Your task to perform on an android device: Clear the cart on target.com. Add "usb-b" to the cart on target.com Image 0: 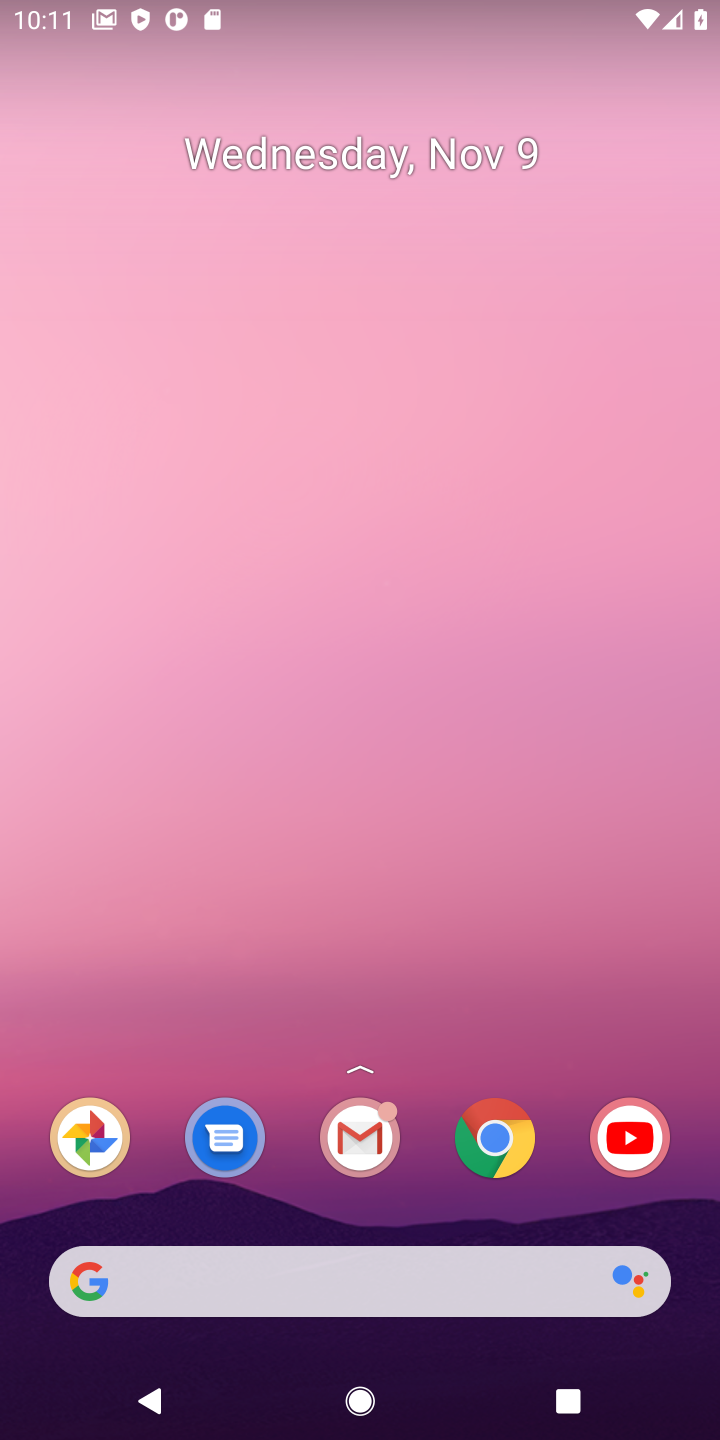
Step 0: press home button
Your task to perform on an android device: Clear the cart on target.com. Add "usb-b" to the cart on target.com Image 1: 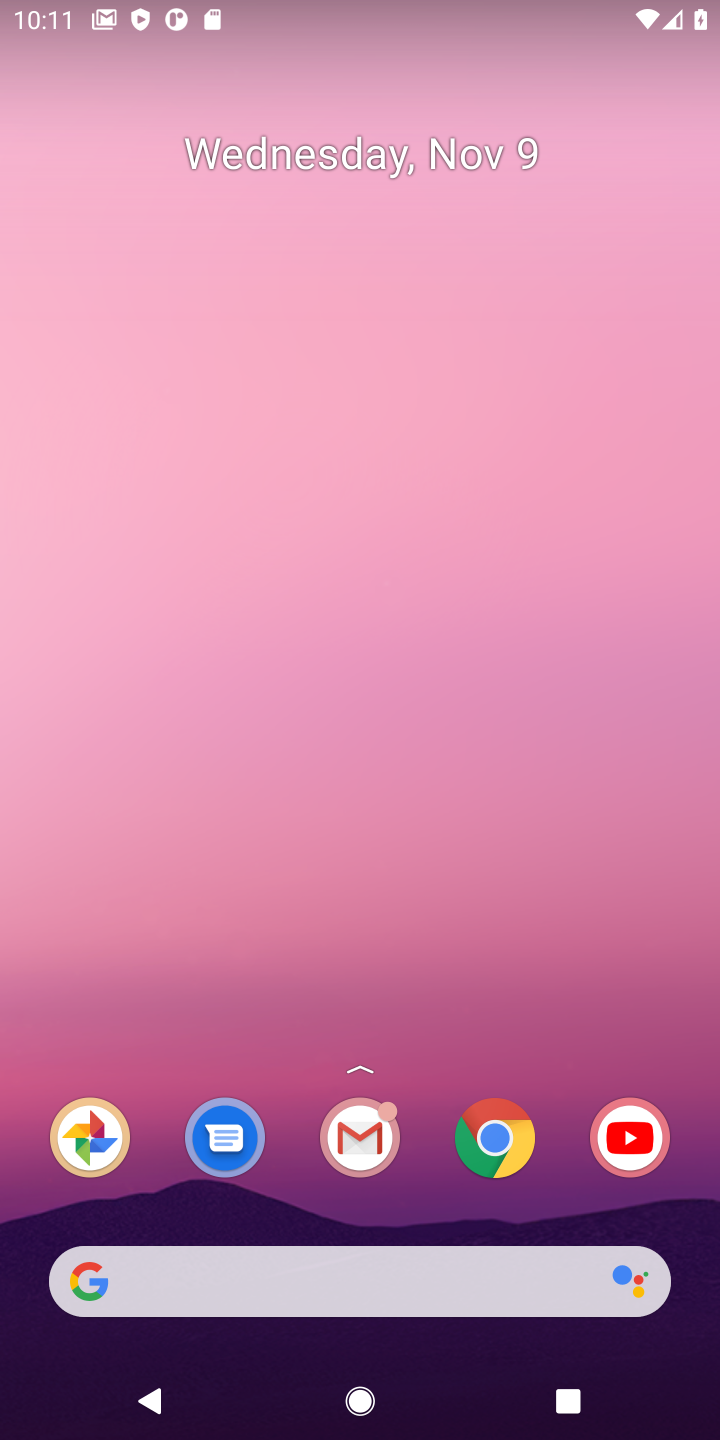
Step 1: drag from (565, 559) to (607, 0)
Your task to perform on an android device: Clear the cart on target.com. Add "usb-b" to the cart on target.com Image 2: 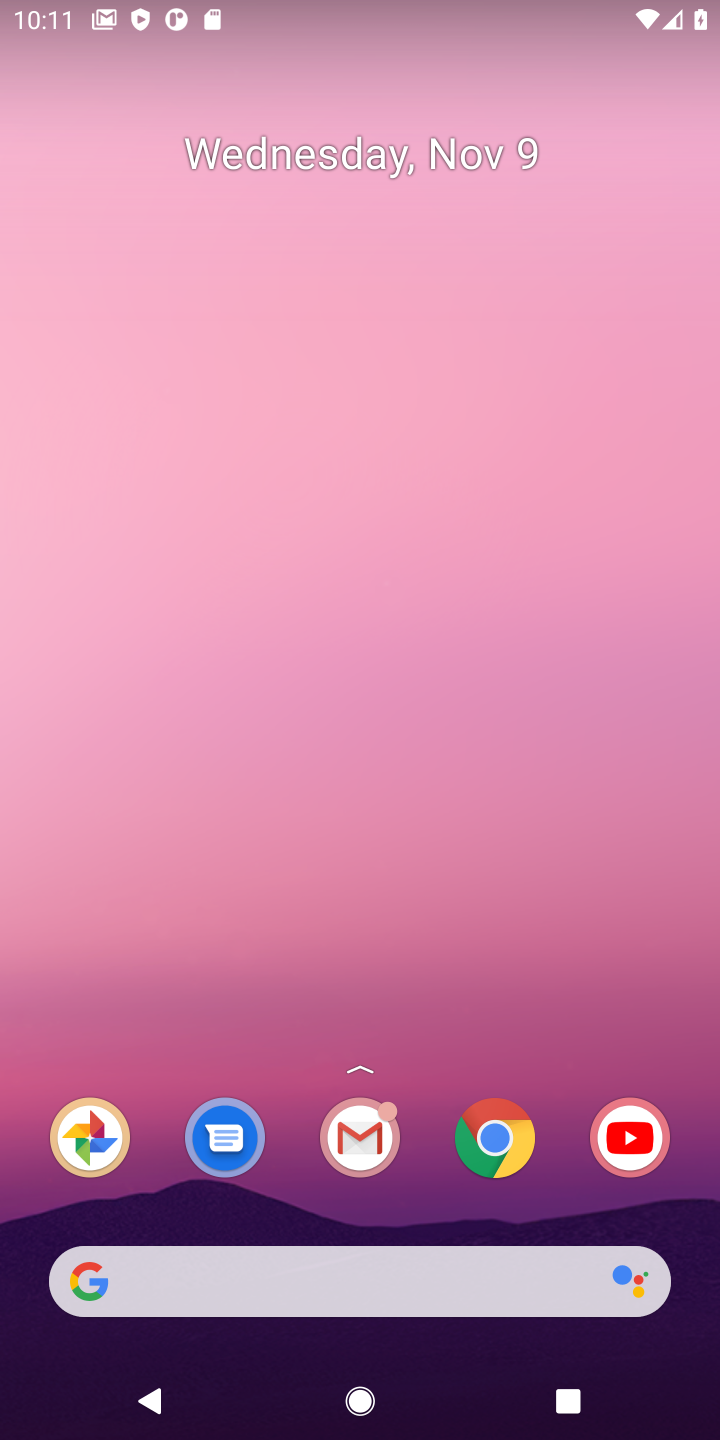
Step 2: drag from (450, 1208) to (368, 28)
Your task to perform on an android device: Clear the cart on target.com. Add "usb-b" to the cart on target.com Image 3: 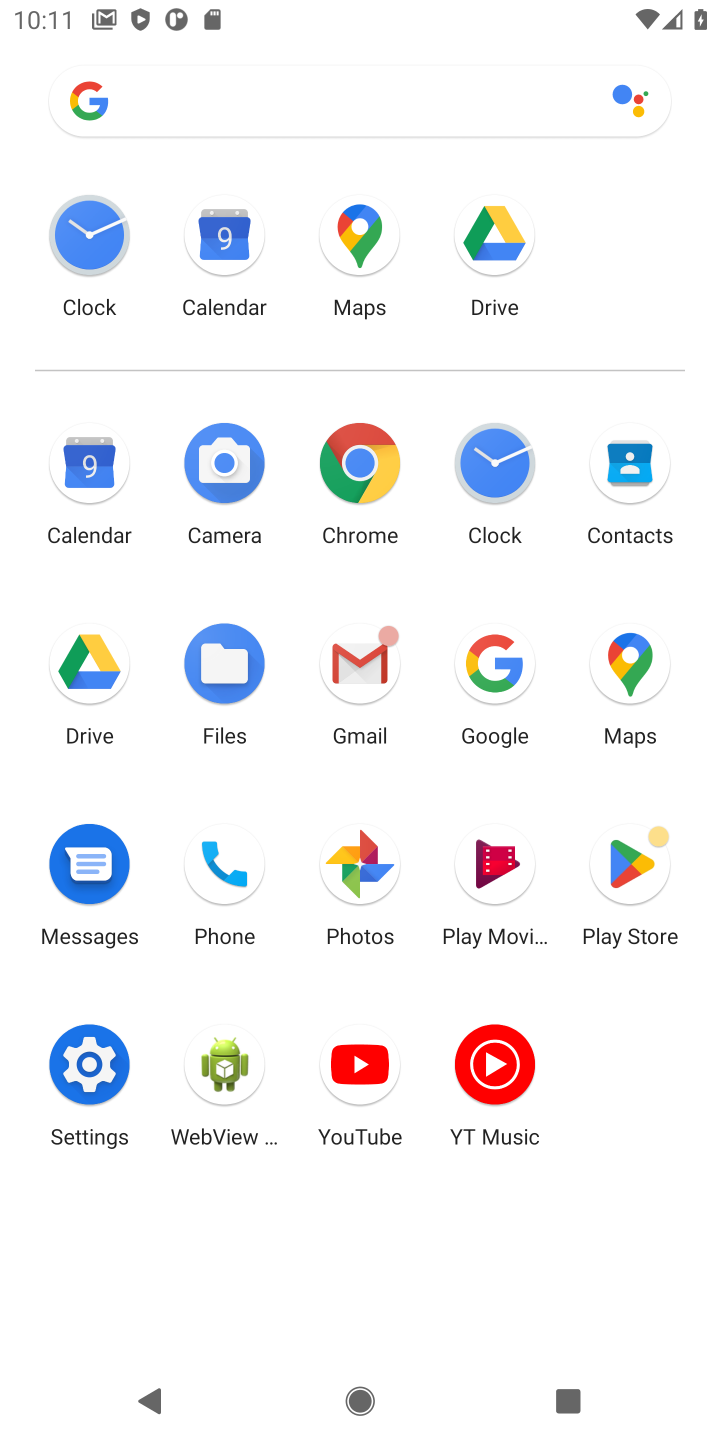
Step 3: click (364, 480)
Your task to perform on an android device: Clear the cart on target.com. Add "usb-b" to the cart on target.com Image 4: 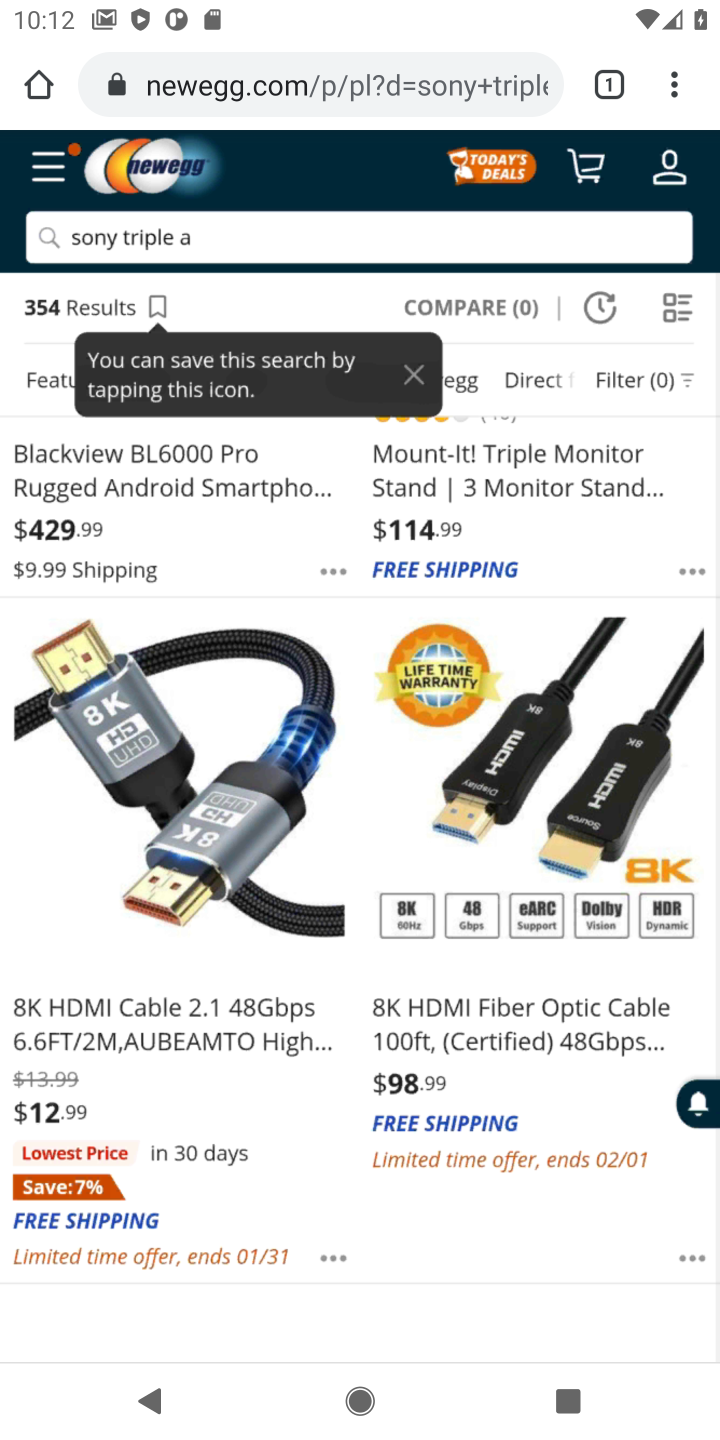
Step 4: click (323, 80)
Your task to perform on an android device: Clear the cart on target.com. Add "usb-b" to the cart on target.com Image 5: 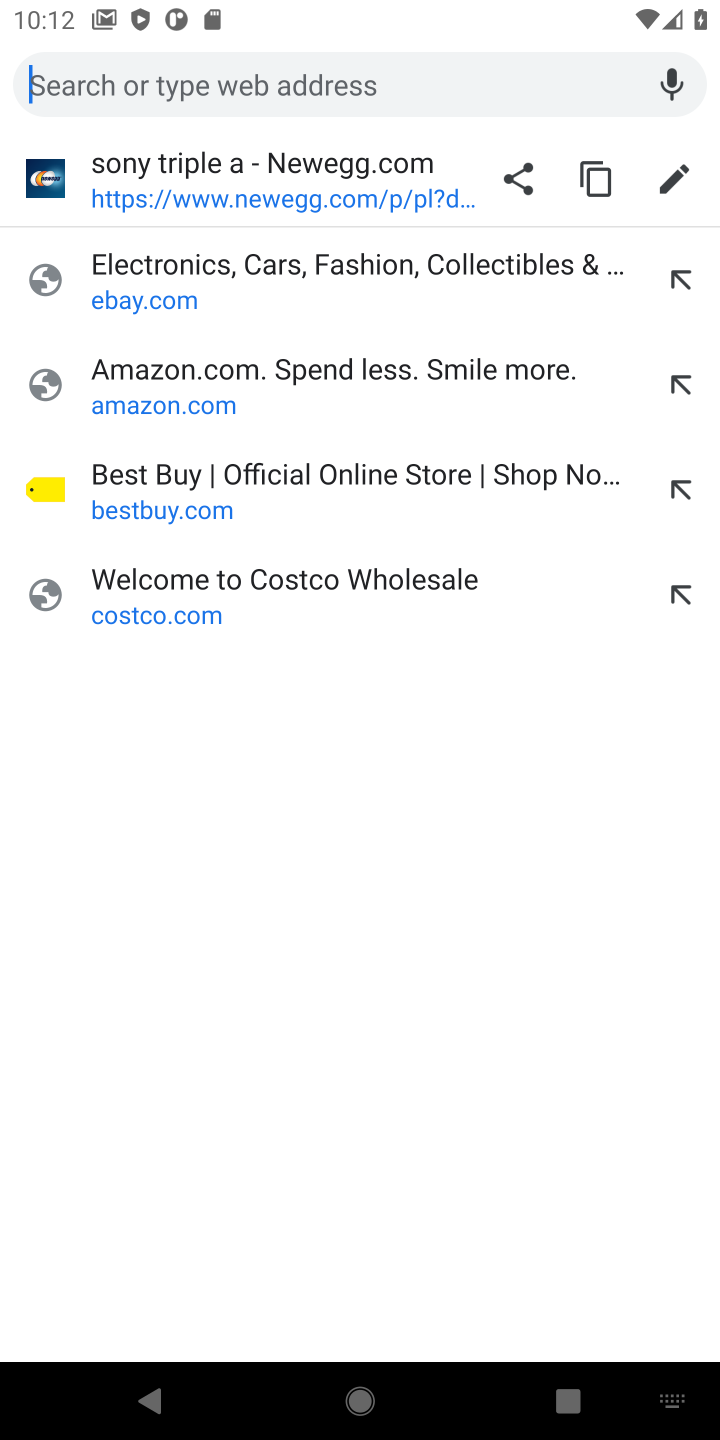
Step 5: type "target.com"
Your task to perform on an android device: Clear the cart on target.com. Add "usb-b" to the cart on target.com Image 6: 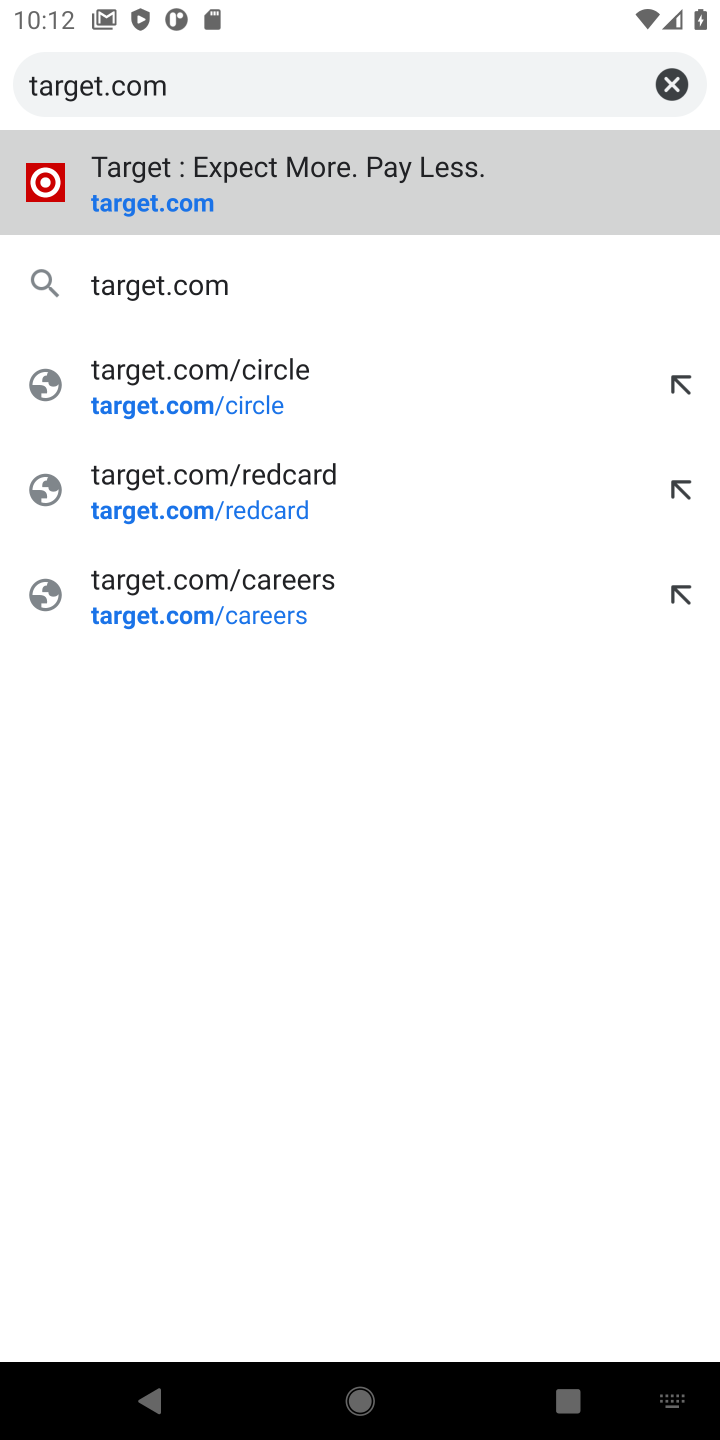
Step 6: press enter
Your task to perform on an android device: Clear the cart on target.com. Add "usb-b" to the cart on target.com Image 7: 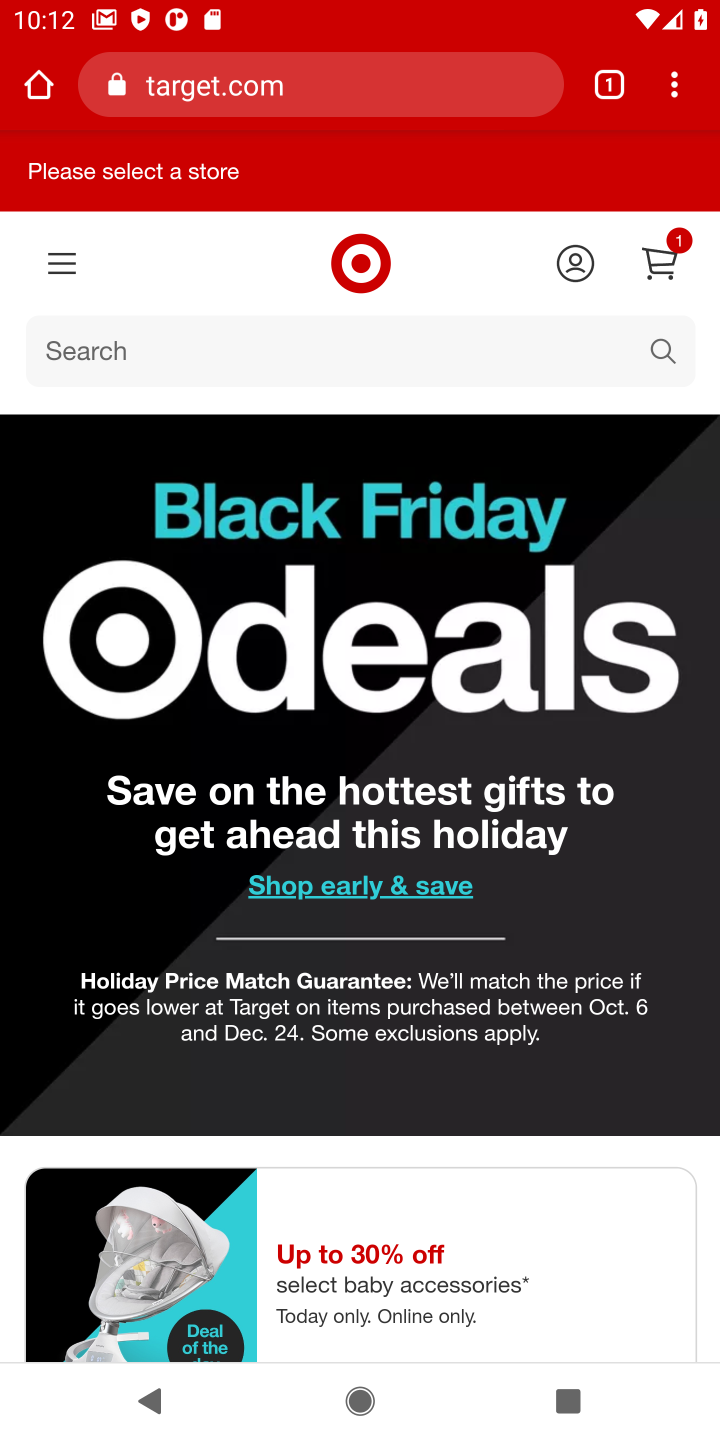
Step 7: click (644, 244)
Your task to perform on an android device: Clear the cart on target.com. Add "usb-b" to the cart on target.com Image 8: 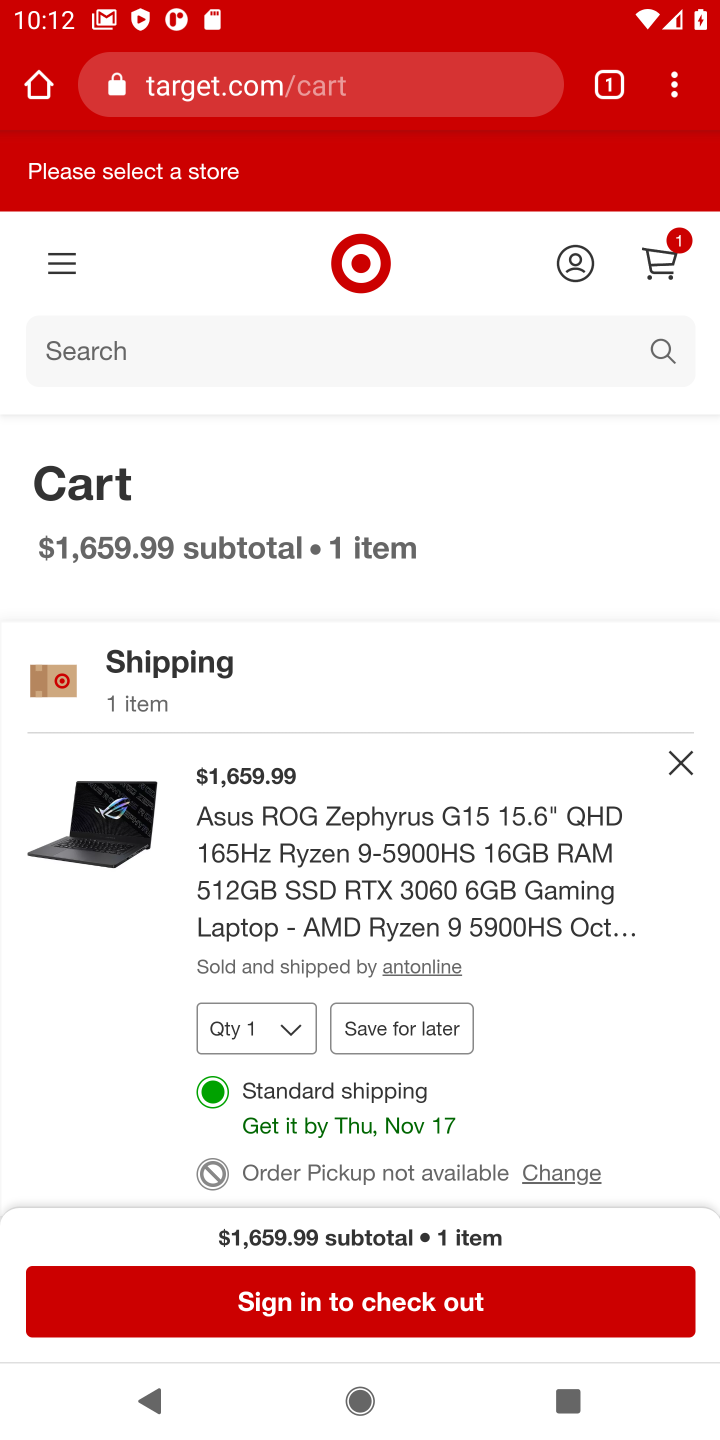
Step 8: click (681, 760)
Your task to perform on an android device: Clear the cart on target.com. Add "usb-b" to the cart on target.com Image 9: 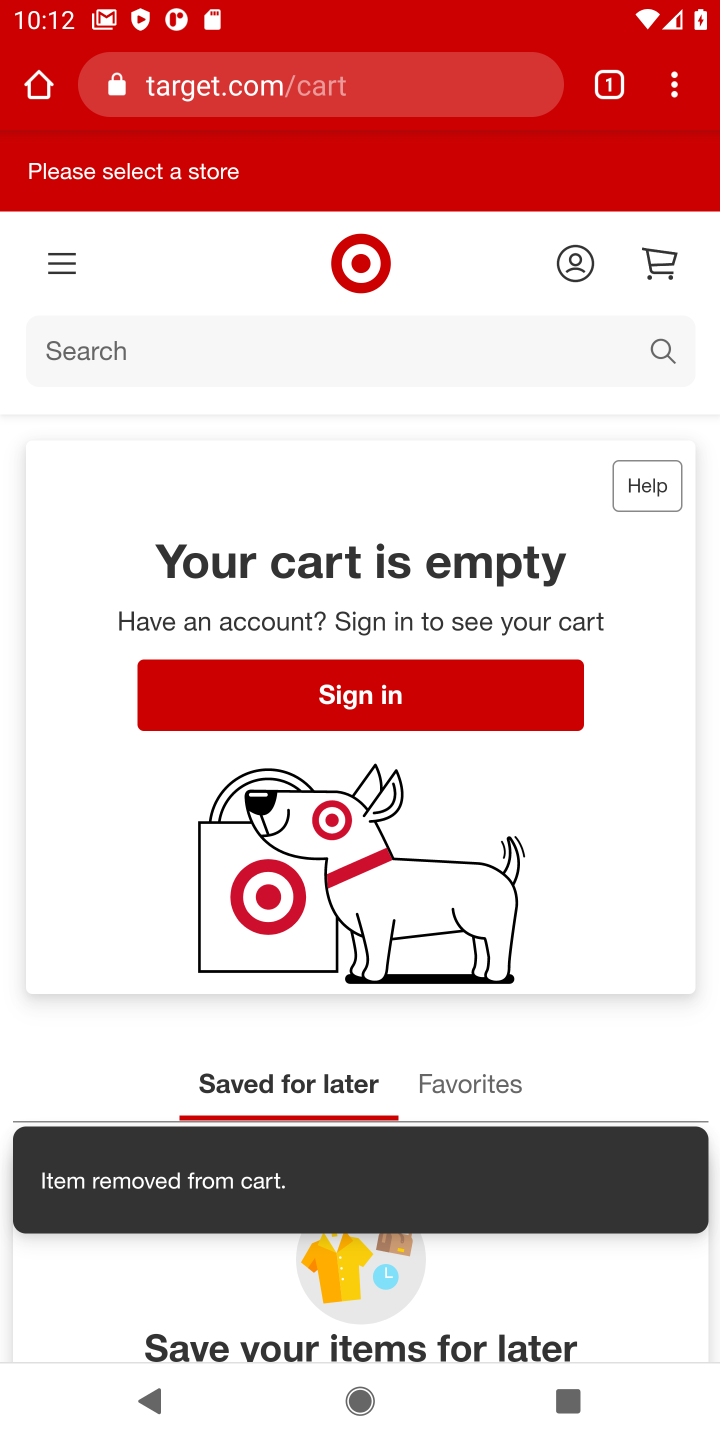
Step 9: click (325, 346)
Your task to perform on an android device: Clear the cart on target.com. Add "usb-b" to the cart on target.com Image 10: 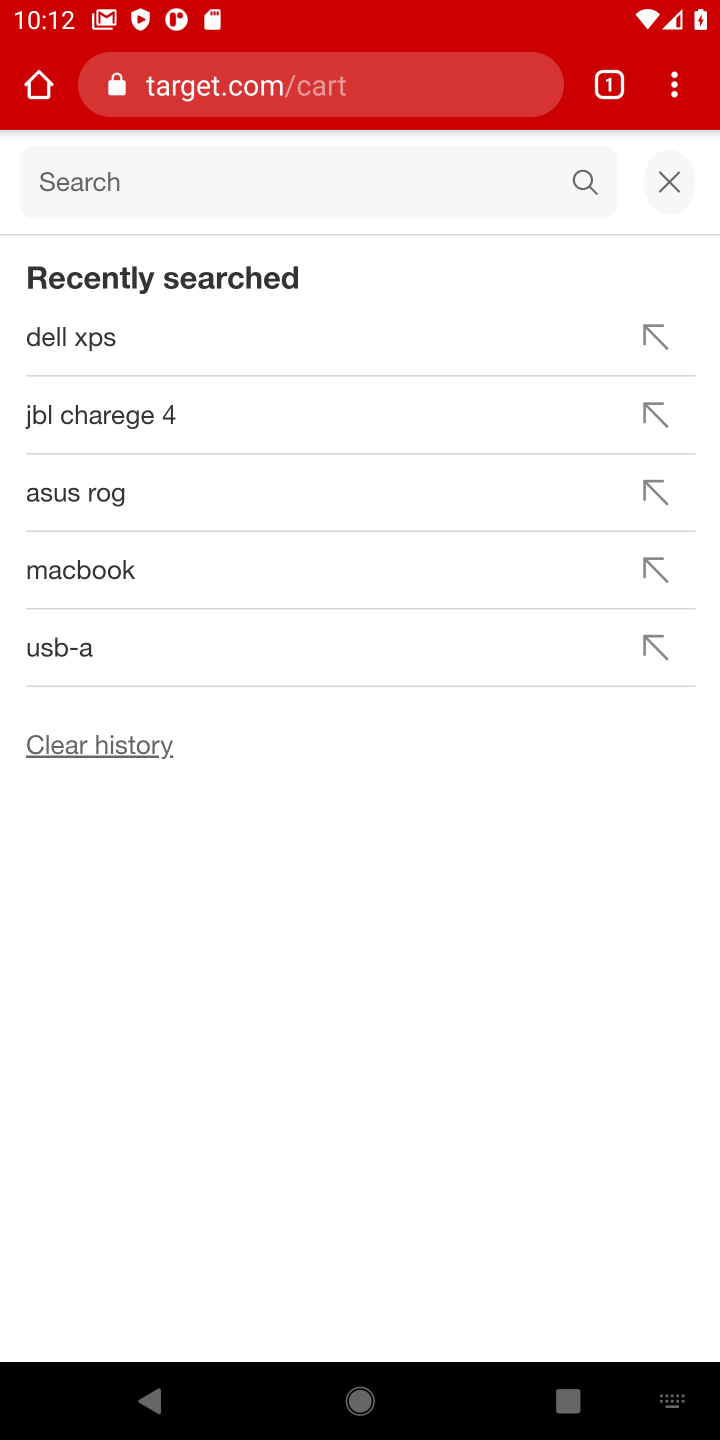
Step 10: type "usb-b"
Your task to perform on an android device: Clear the cart on target.com. Add "usb-b" to the cart on target.com Image 11: 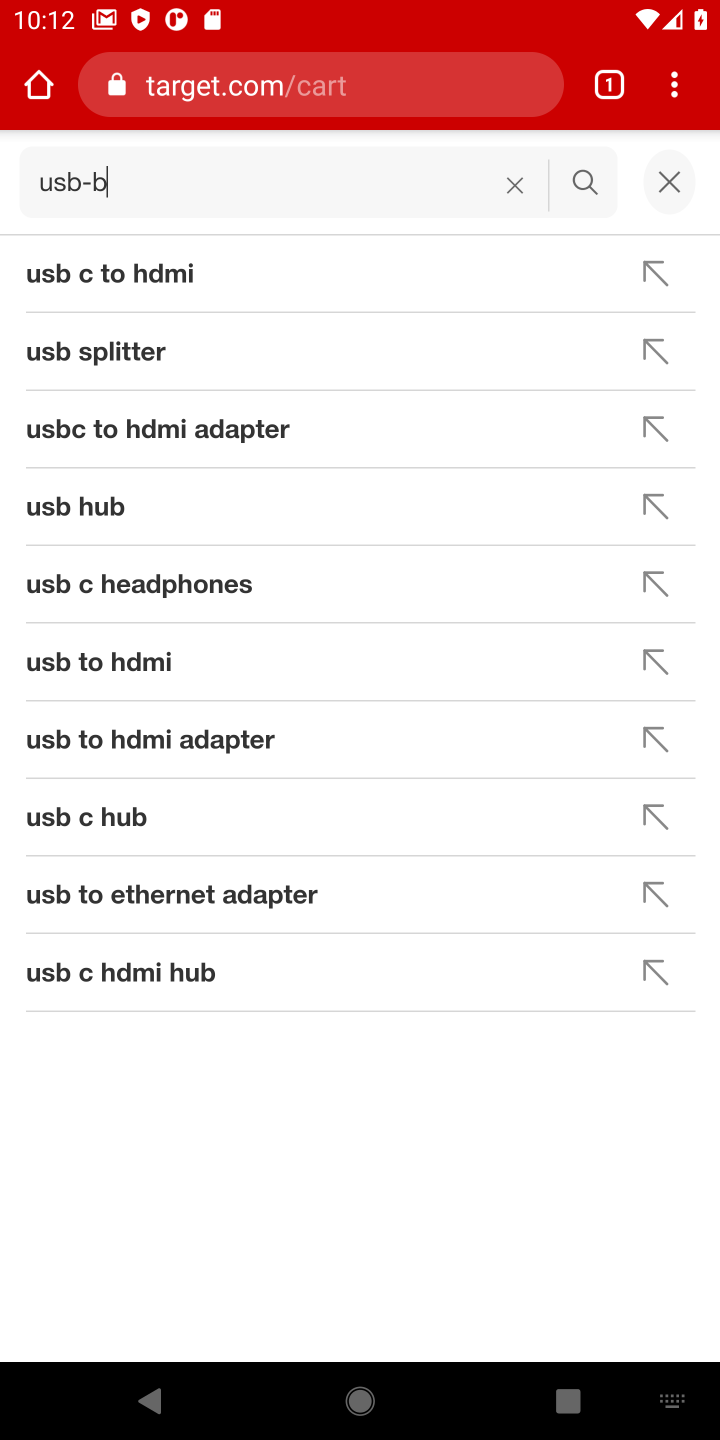
Step 11: press enter
Your task to perform on an android device: Clear the cart on target.com. Add "usb-b" to the cart on target.com Image 12: 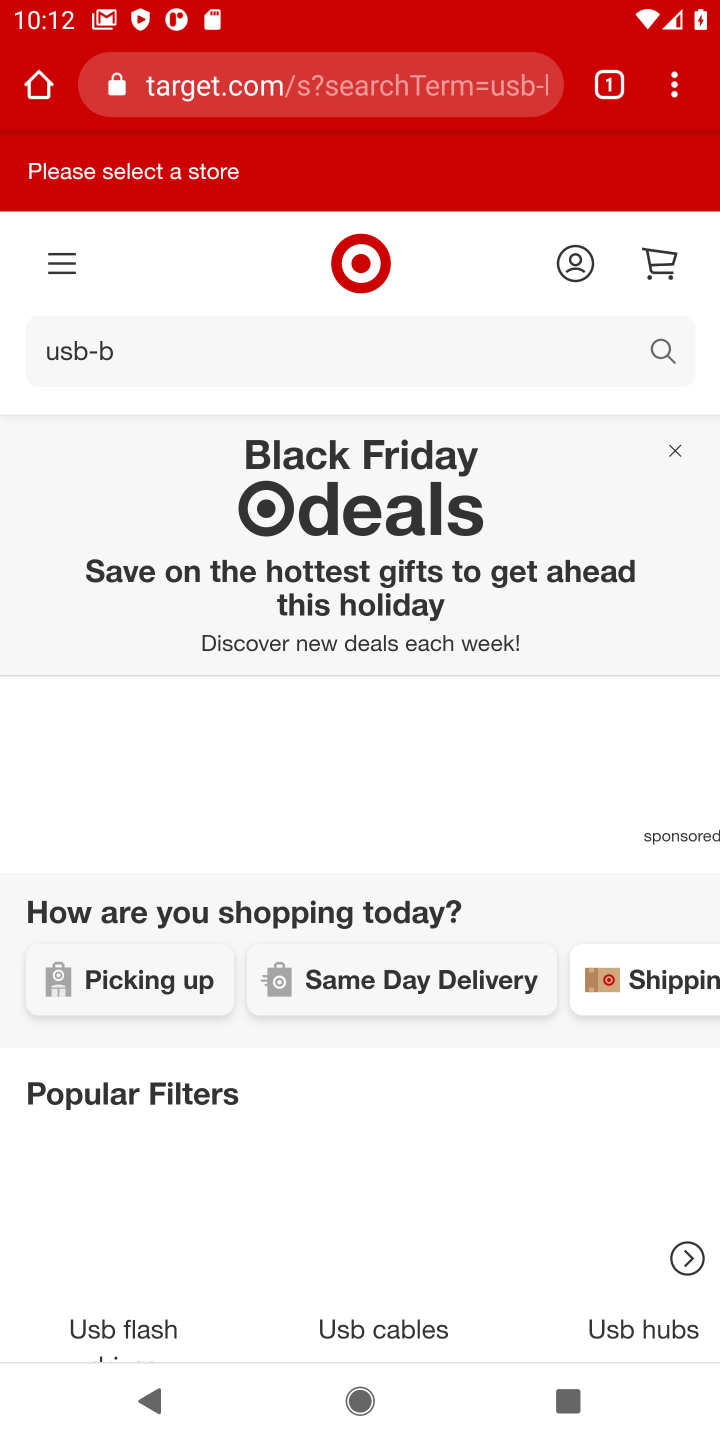
Step 12: drag from (425, 1098) to (455, 315)
Your task to perform on an android device: Clear the cart on target.com. Add "usb-b" to the cart on target.com Image 13: 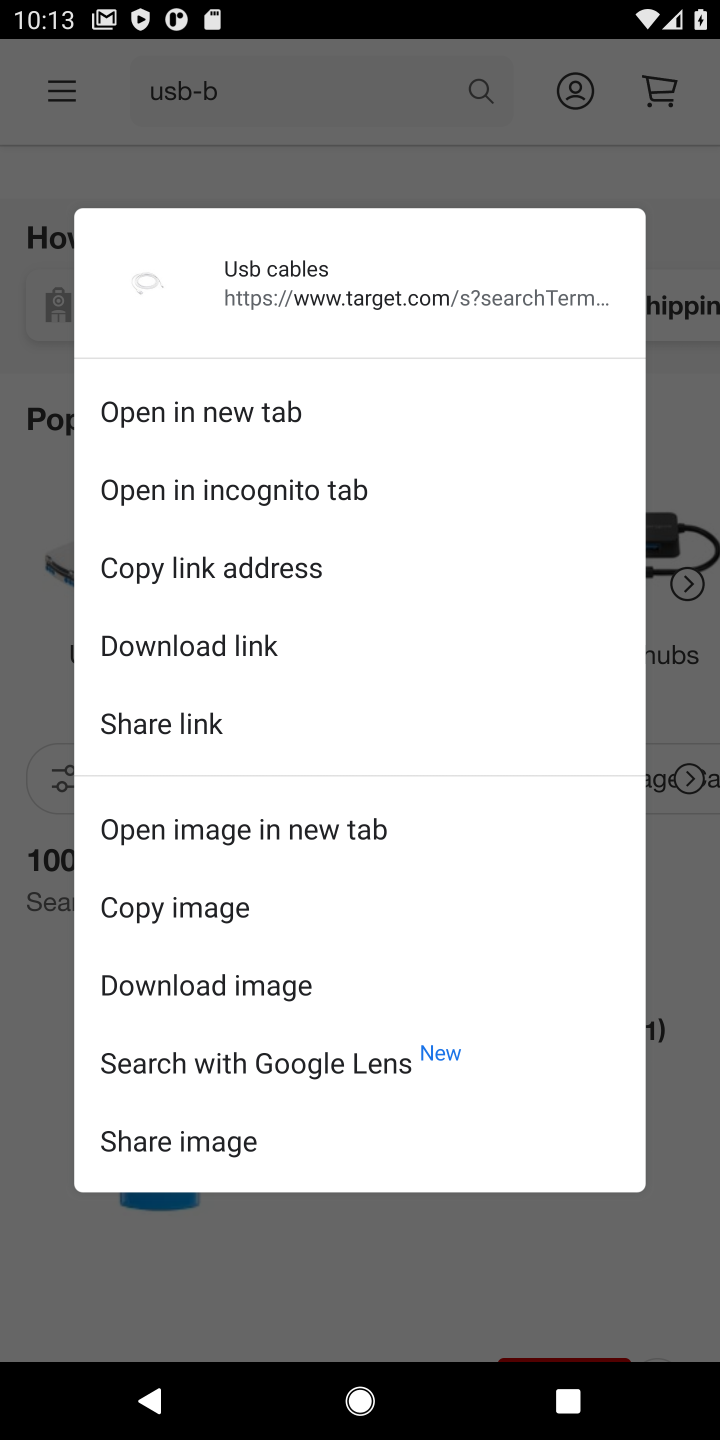
Step 13: click (690, 595)
Your task to perform on an android device: Clear the cart on target.com. Add "usb-b" to the cart on target.com Image 14: 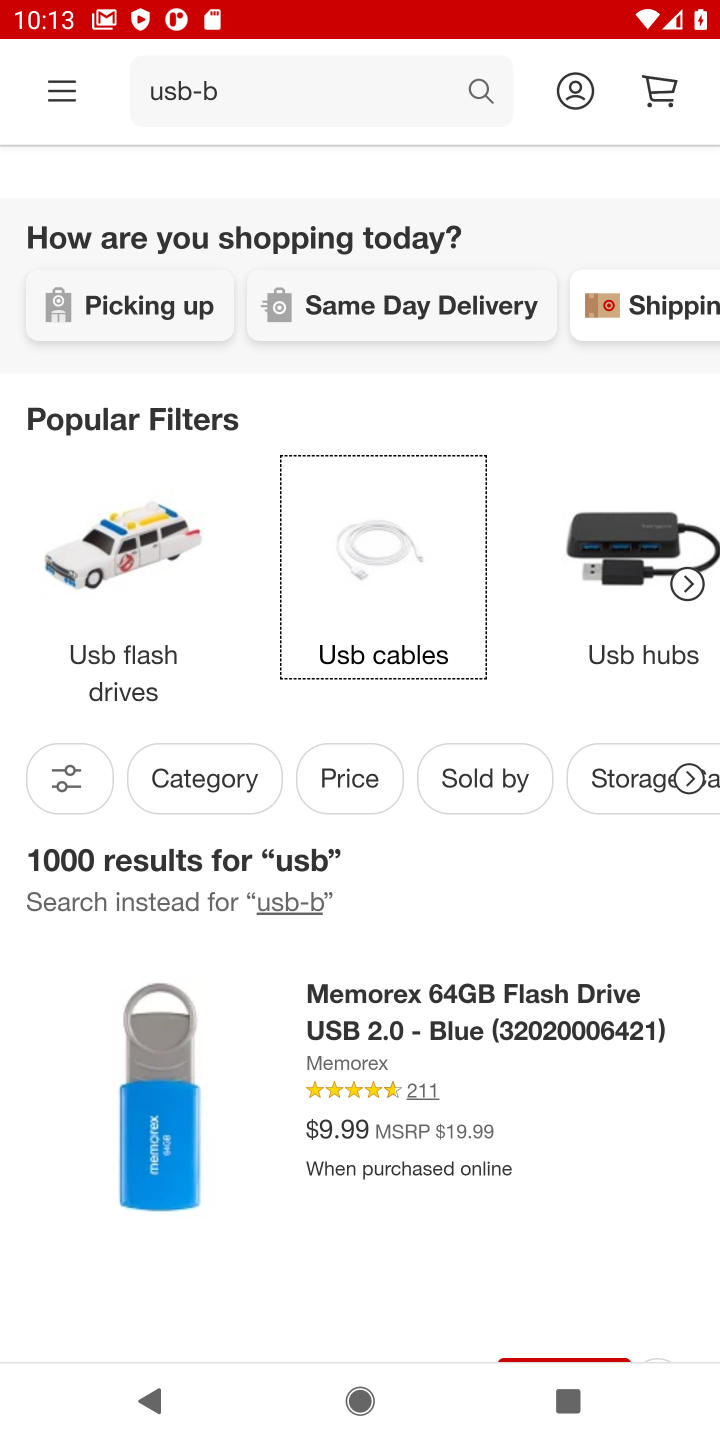
Step 14: drag from (473, 1180) to (493, 2)
Your task to perform on an android device: Clear the cart on target.com. Add "usb-b" to the cart on target.com Image 15: 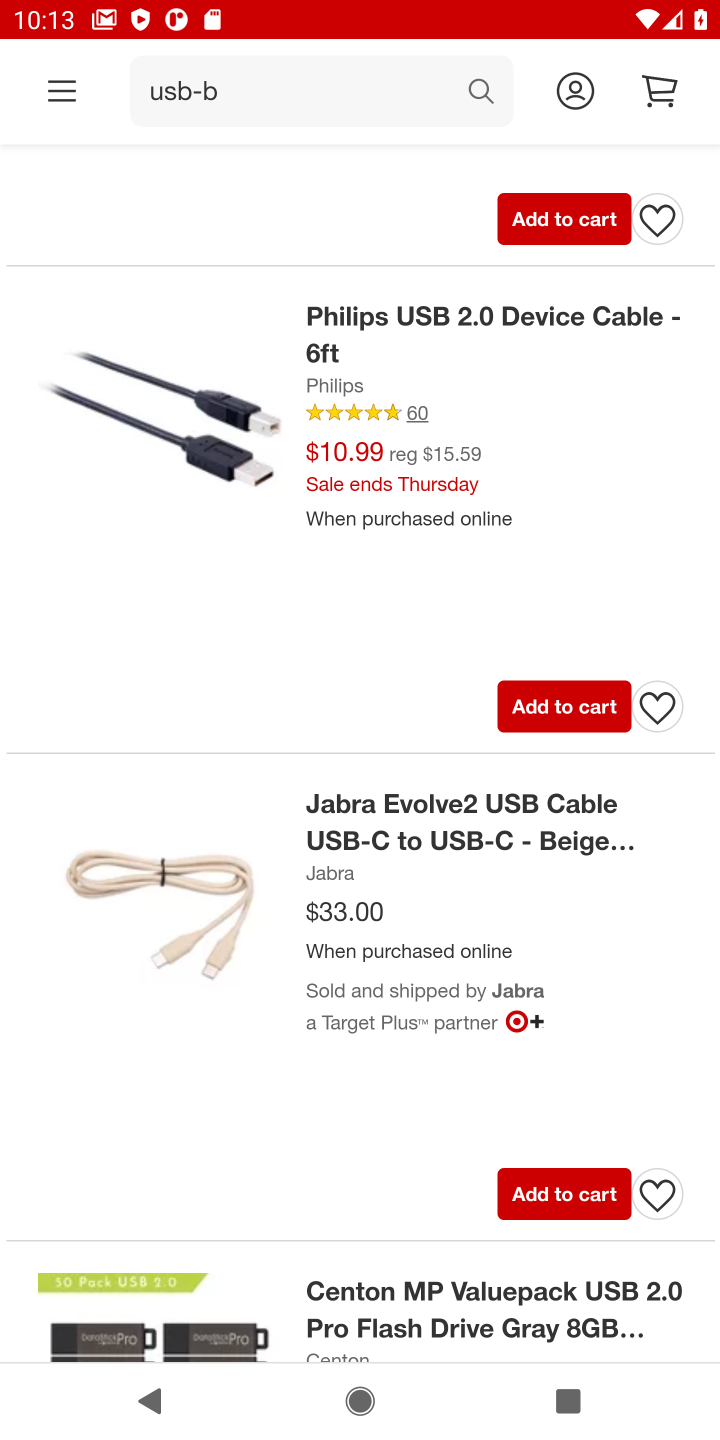
Step 15: click (546, 715)
Your task to perform on an android device: Clear the cart on target.com. Add "usb-b" to the cart on target.com Image 16: 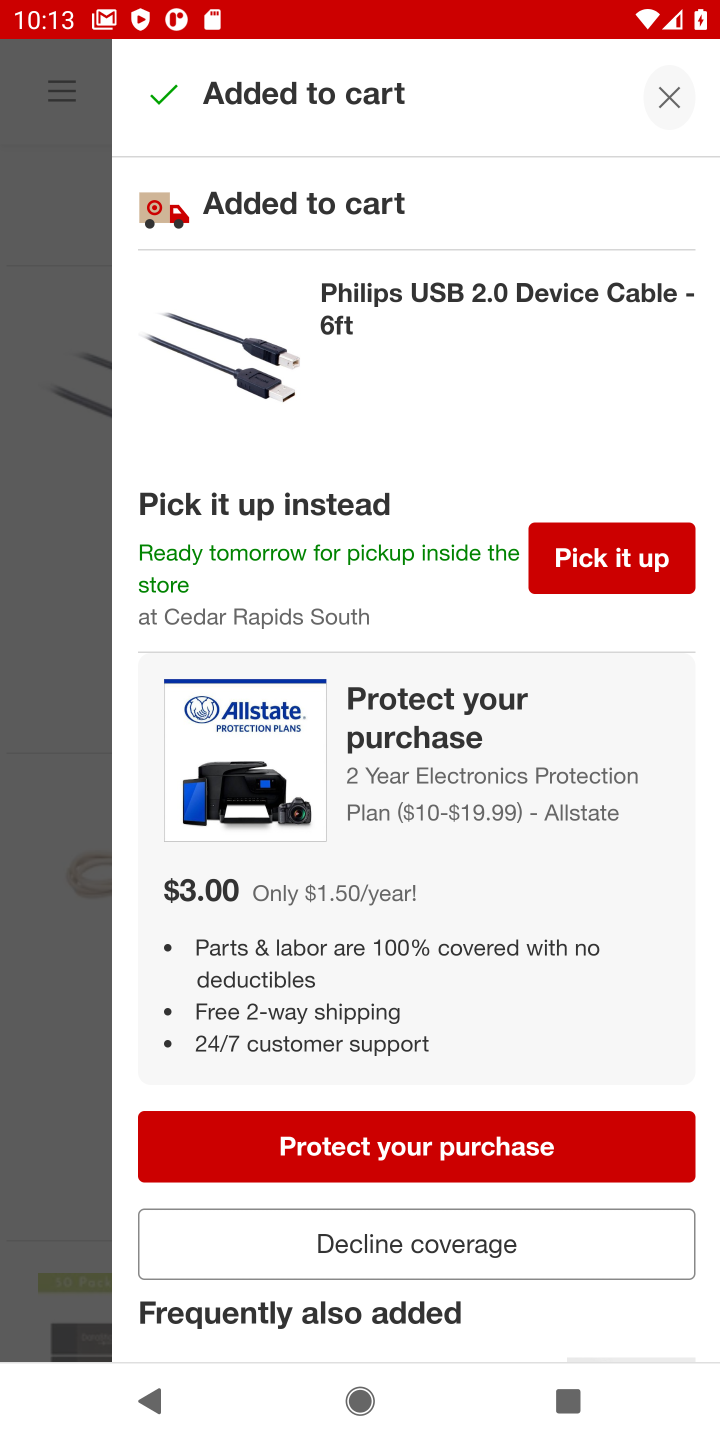
Step 16: click (672, 100)
Your task to perform on an android device: Clear the cart on target.com. Add "usb-b" to the cart on target.com Image 17: 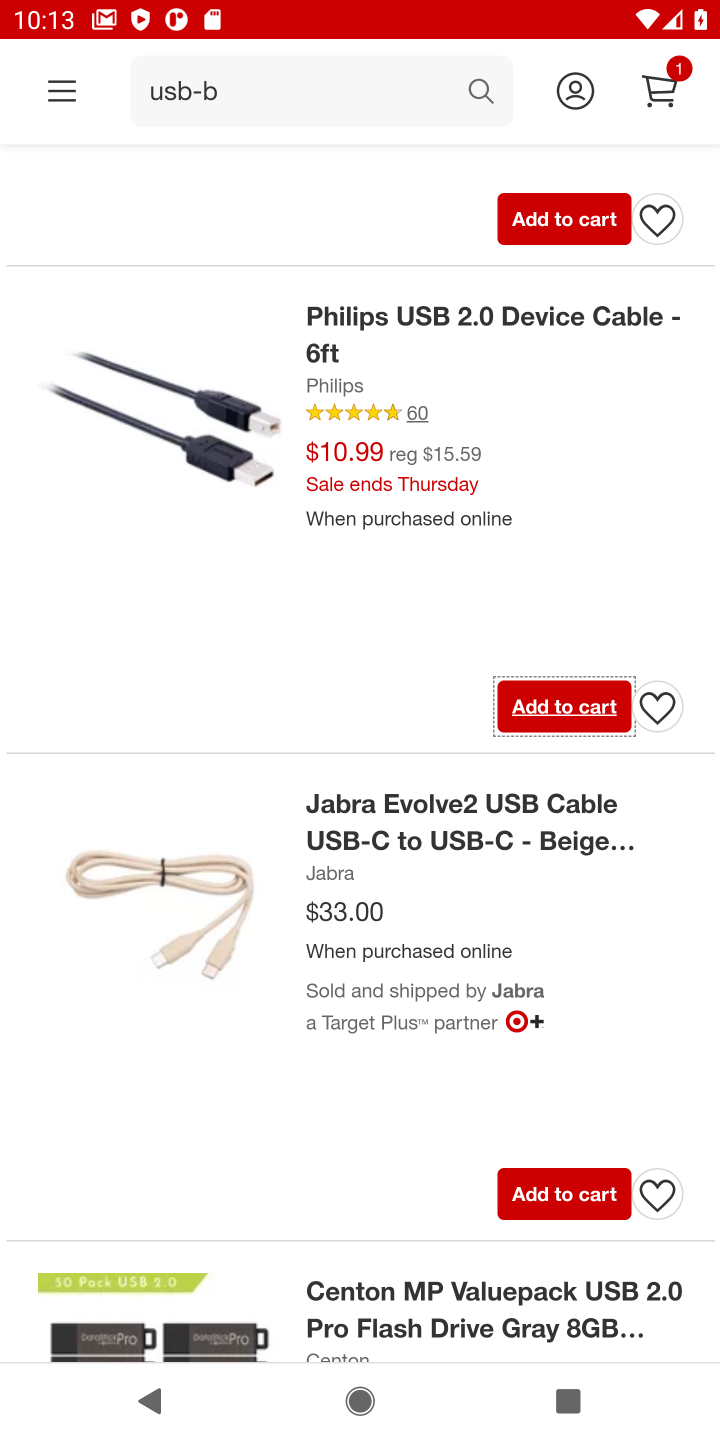
Step 17: click (672, 100)
Your task to perform on an android device: Clear the cart on target.com. Add "usb-b" to the cart on target.com Image 18: 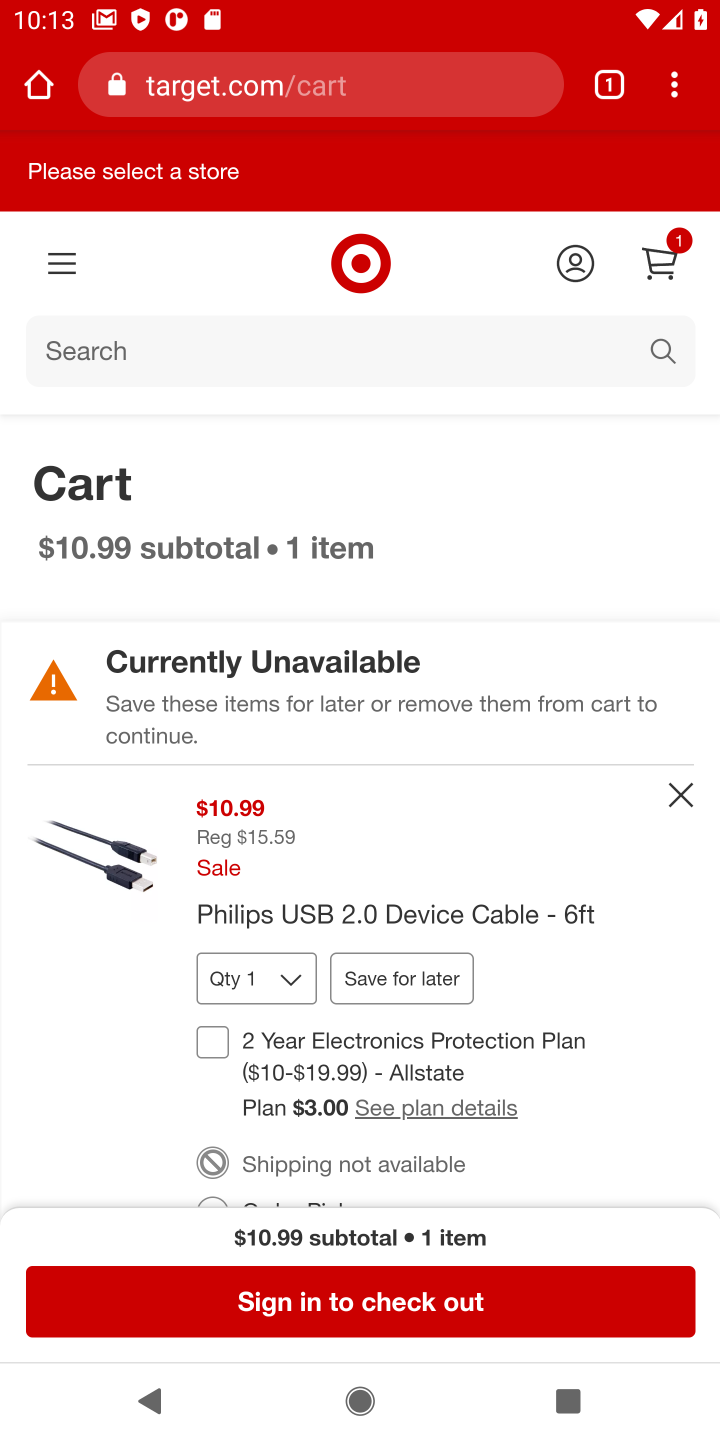
Step 18: task complete